Your task to perform on an android device: change notifications settings Image 0: 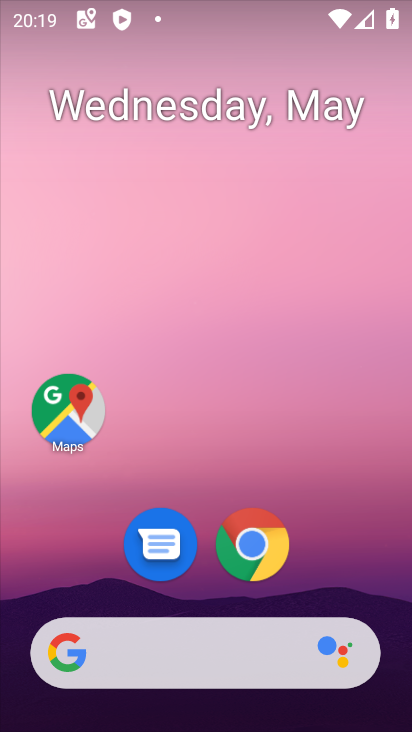
Step 0: drag from (203, 594) to (236, 288)
Your task to perform on an android device: change notifications settings Image 1: 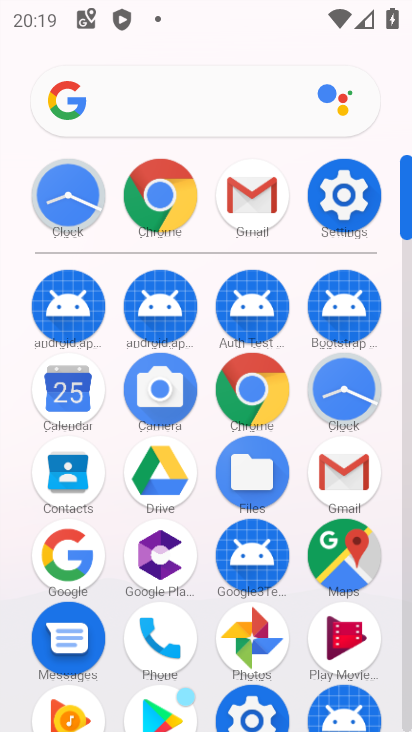
Step 1: click (306, 201)
Your task to perform on an android device: change notifications settings Image 2: 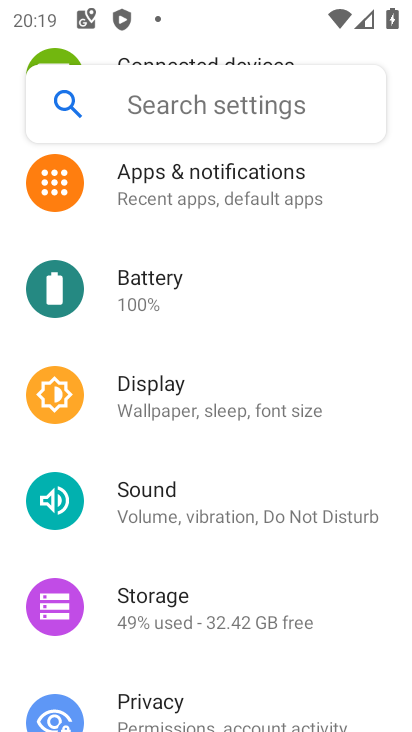
Step 2: click (148, 188)
Your task to perform on an android device: change notifications settings Image 3: 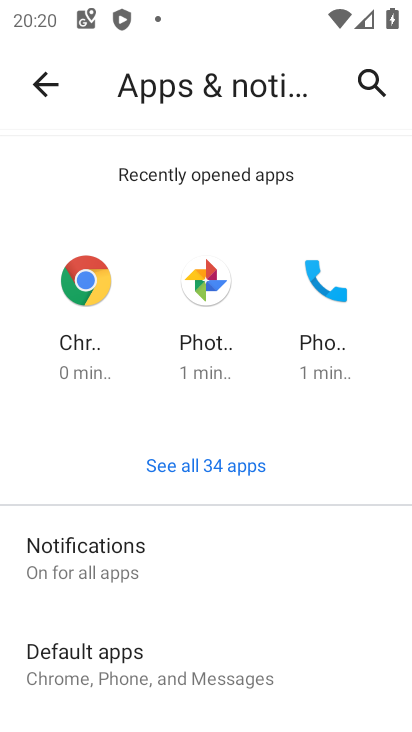
Step 3: drag from (230, 659) to (202, 88)
Your task to perform on an android device: change notifications settings Image 4: 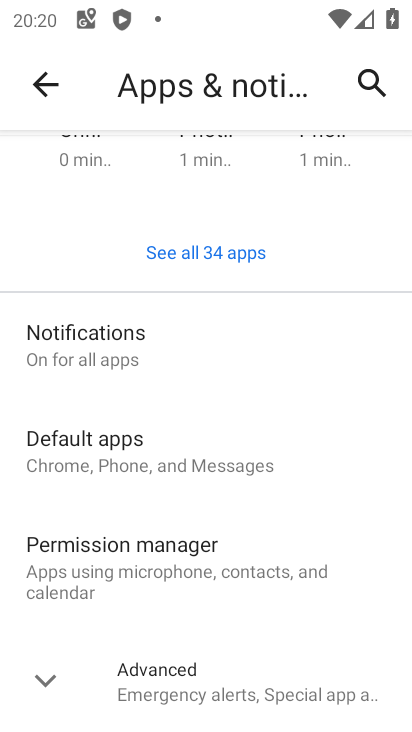
Step 4: click (168, 663)
Your task to perform on an android device: change notifications settings Image 5: 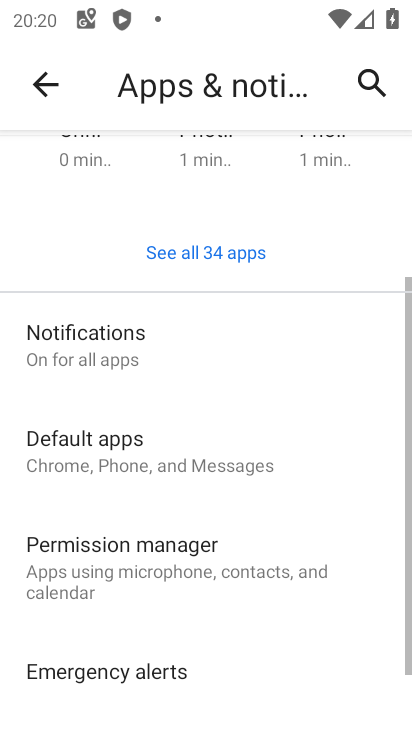
Step 5: drag from (168, 663) to (154, 141)
Your task to perform on an android device: change notifications settings Image 6: 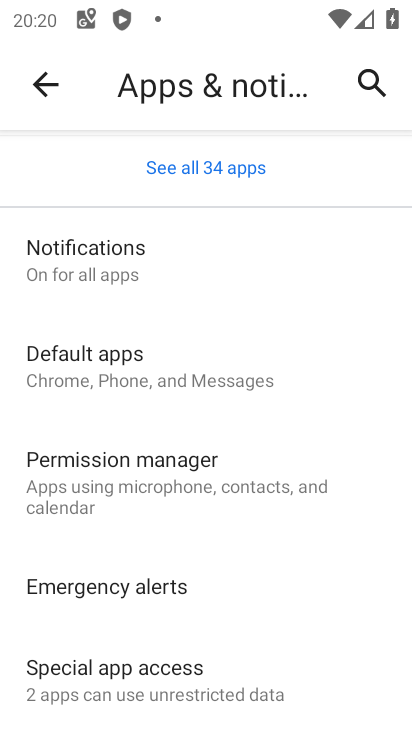
Step 6: click (112, 268)
Your task to perform on an android device: change notifications settings Image 7: 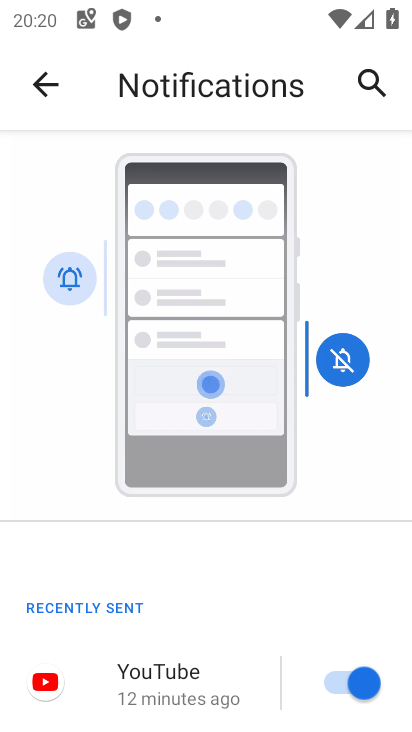
Step 7: drag from (162, 529) to (257, 97)
Your task to perform on an android device: change notifications settings Image 8: 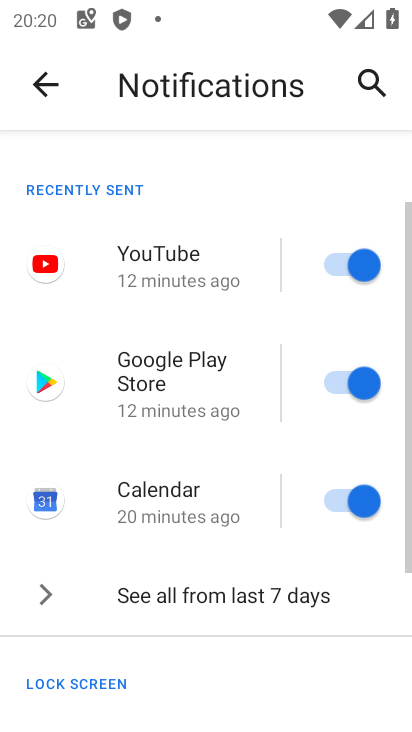
Step 8: drag from (176, 617) to (165, 135)
Your task to perform on an android device: change notifications settings Image 9: 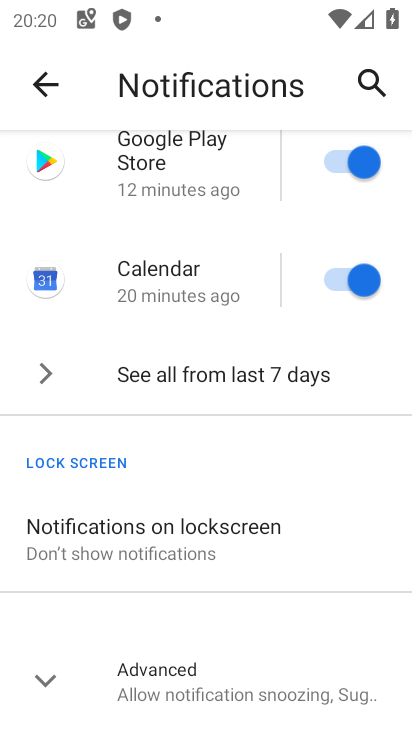
Step 9: click (170, 665)
Your task to perform on an android device: change notifications settings Image 10: 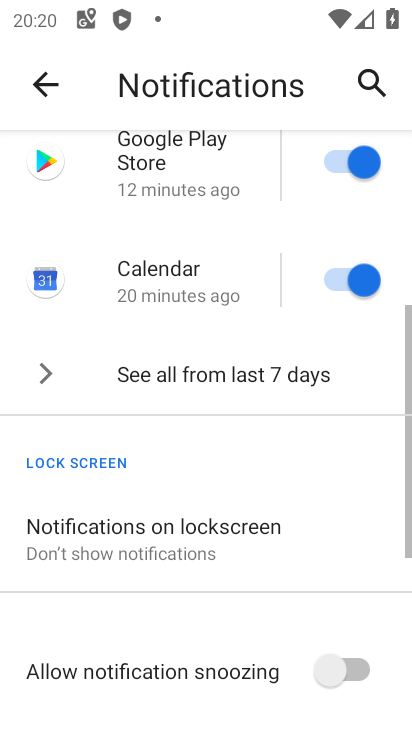
Step 10: drag from (170, 665) to (221, 175)
Your task to perform on an android device: change notifications settings Image 11: 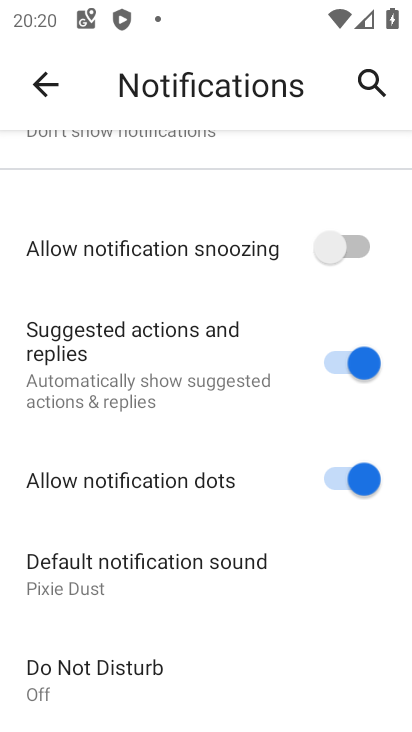
Step 11: click (371, 481)
Your task to perform on an android device: change notifications settings Image 12: 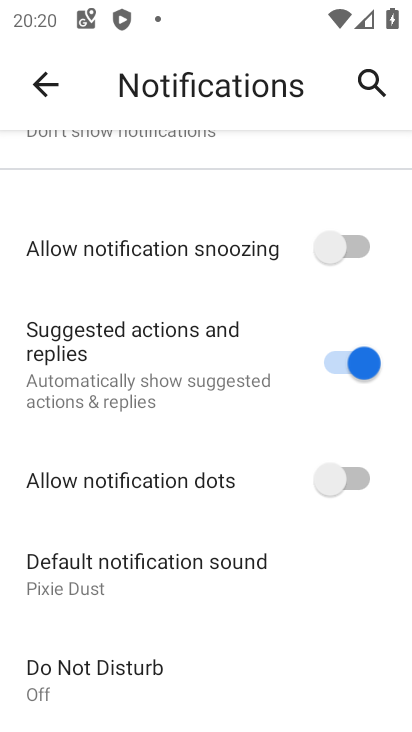
Step 12: click (347, 364)
Your task to perform on an android device: change notifications settings Image 13: 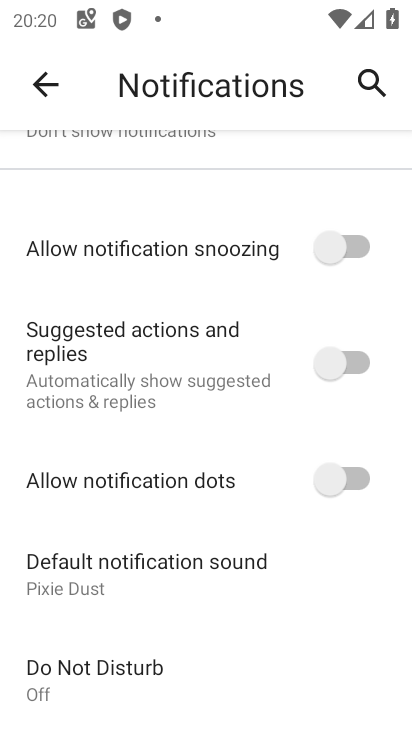
Step 13: click (361, 251)
Your task to perform on an android device: change notifications settings Image 14: 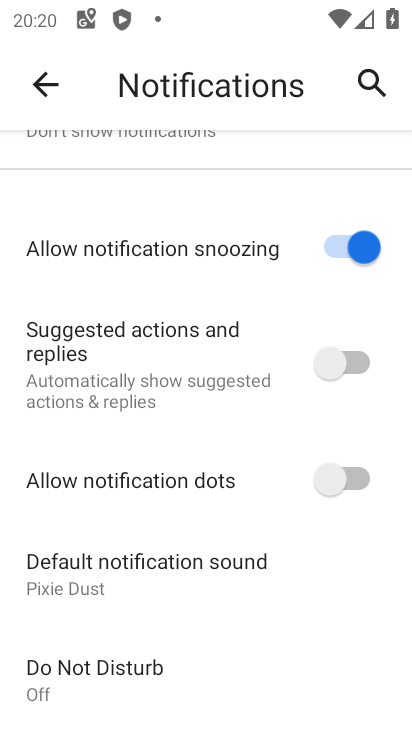
Step 14: task complete